Your task to perform on an android device: install app "Microsoft Excel" Image 0: 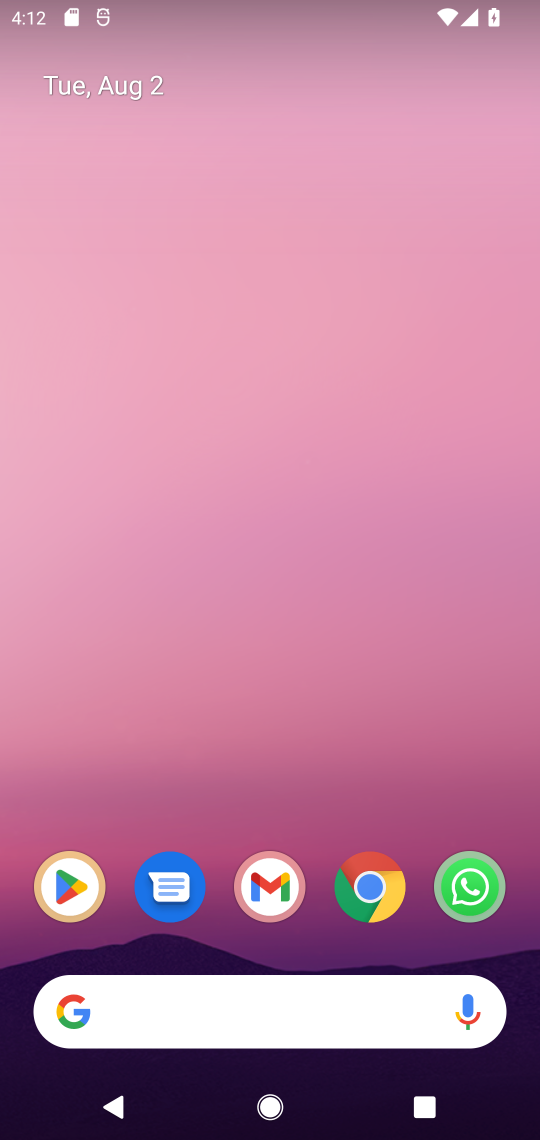
Step 0: click (46, 895)
Your task to perform on an android device: install app "Microsoft Excel" Image 1: 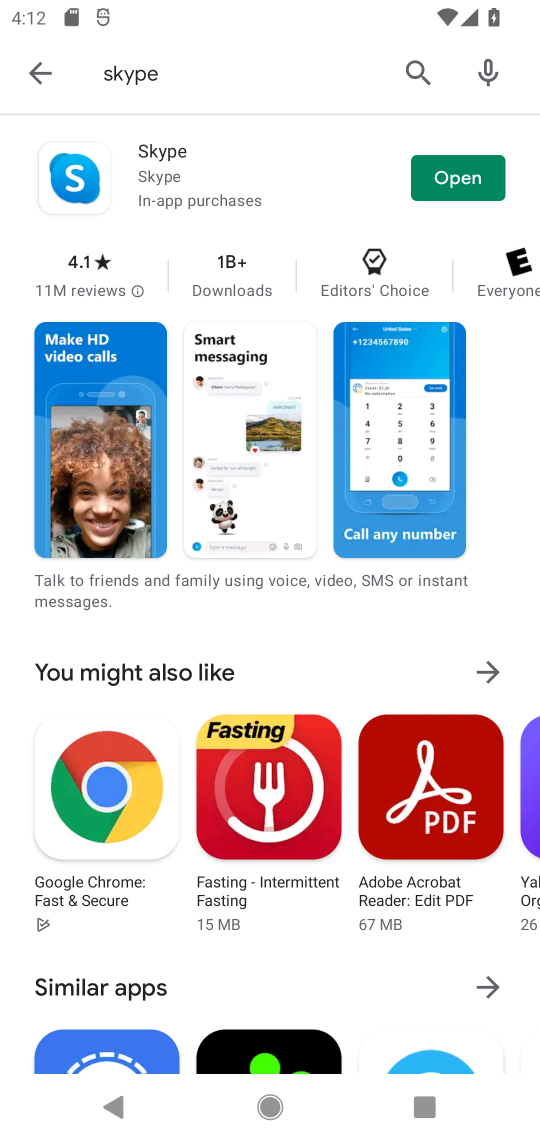
Step 1: click (25, 71)
Your task to perform on an android device: install app "Microsoft Excel" Image 2: 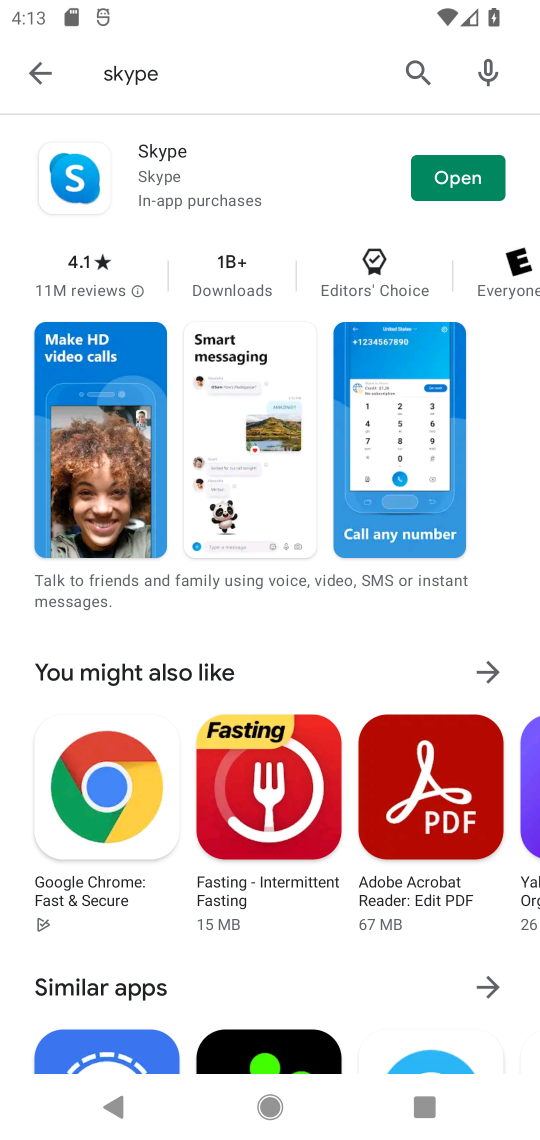
Step 2: click (22, 79)
Your task to perform on an android device: install app "Microsoft Excel" Image 3: 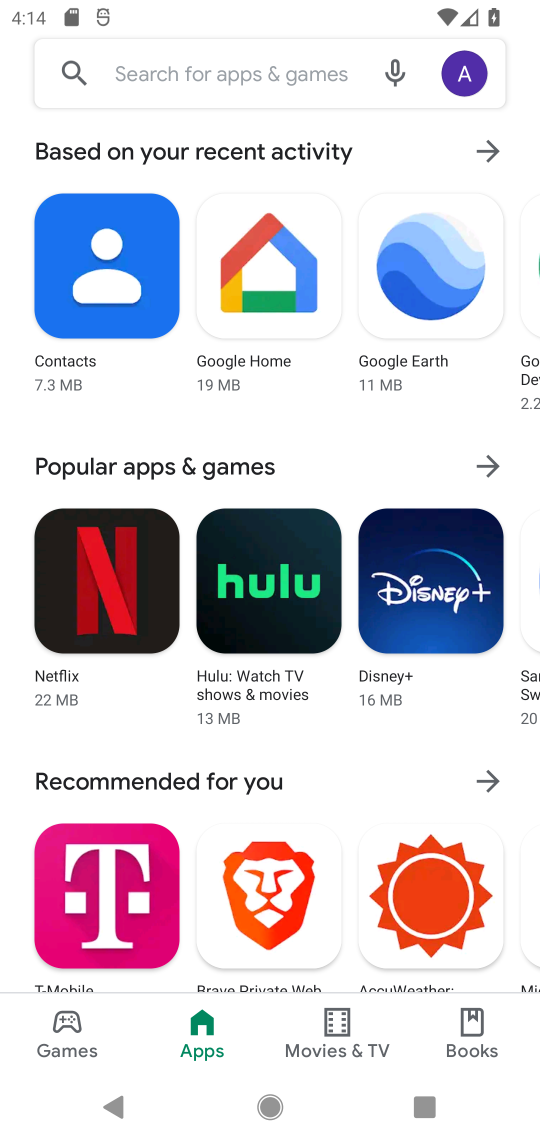
Step 3: click (186, 75)
Your task to perform on an android device: install app "Microsoft Excel" Image 4: 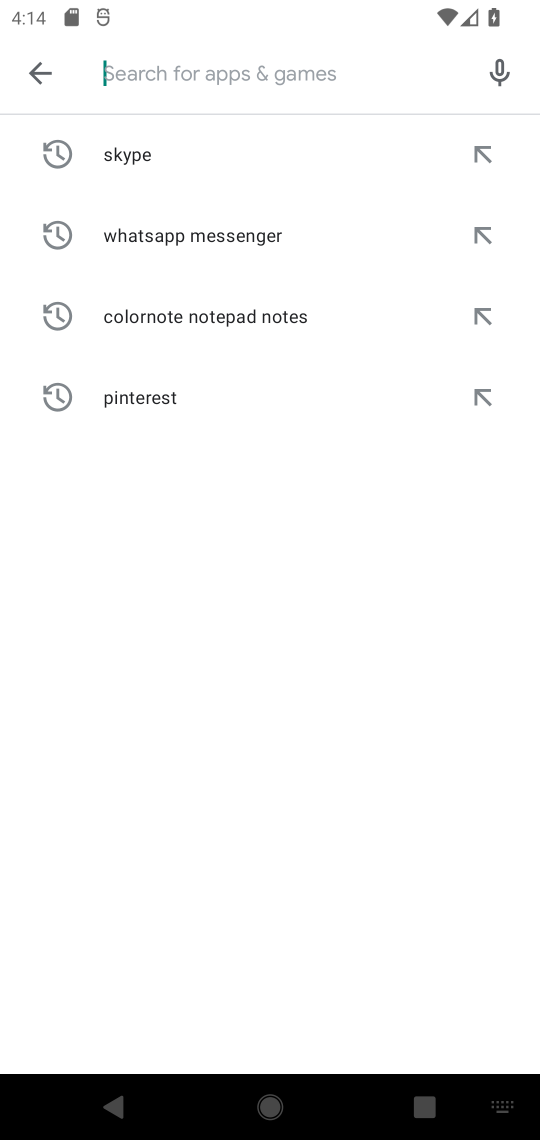
Step 4: type "Microsoft Excel"
Your task to perform on an android device: install app "Microsoft Excel" Image 5: 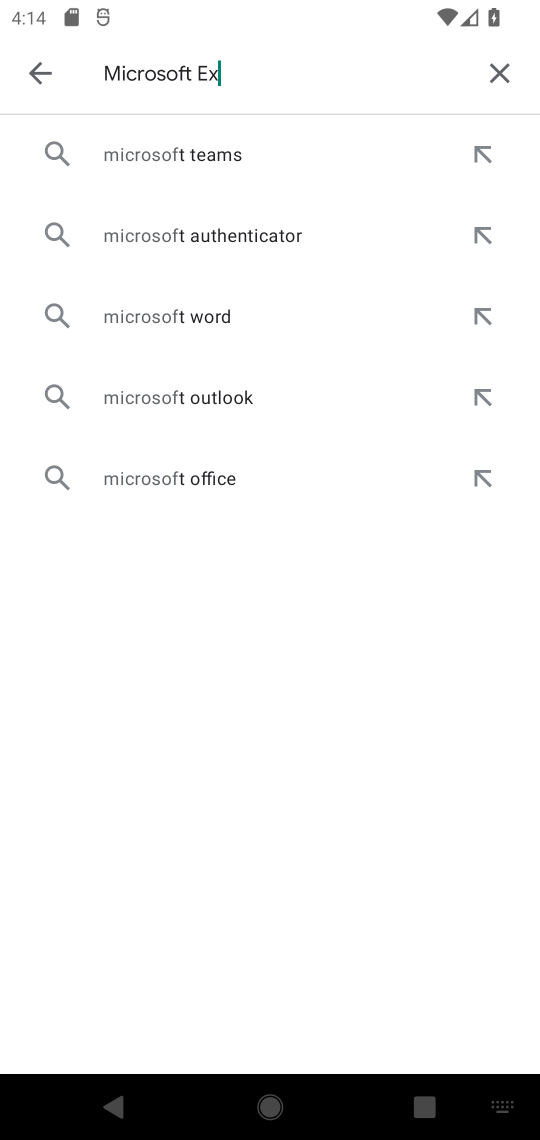
Step 5: type ""
Your task to perform on an android device: install app "Microsoft Excel" Image 6: 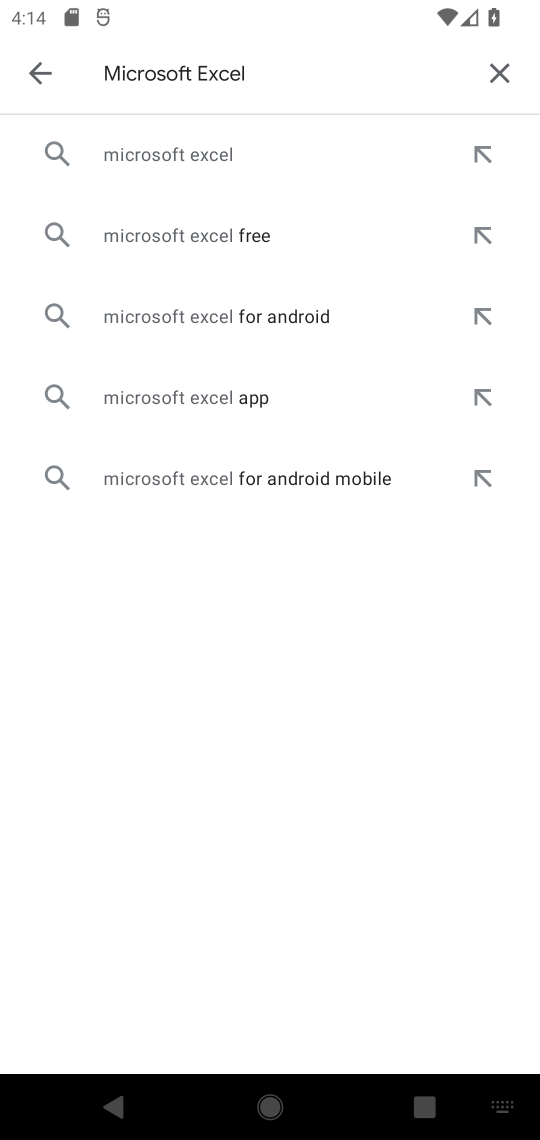
Step 6: click (125, 155)
Your task to perform on an android device: install app "Microsoft Excel" Image 7: 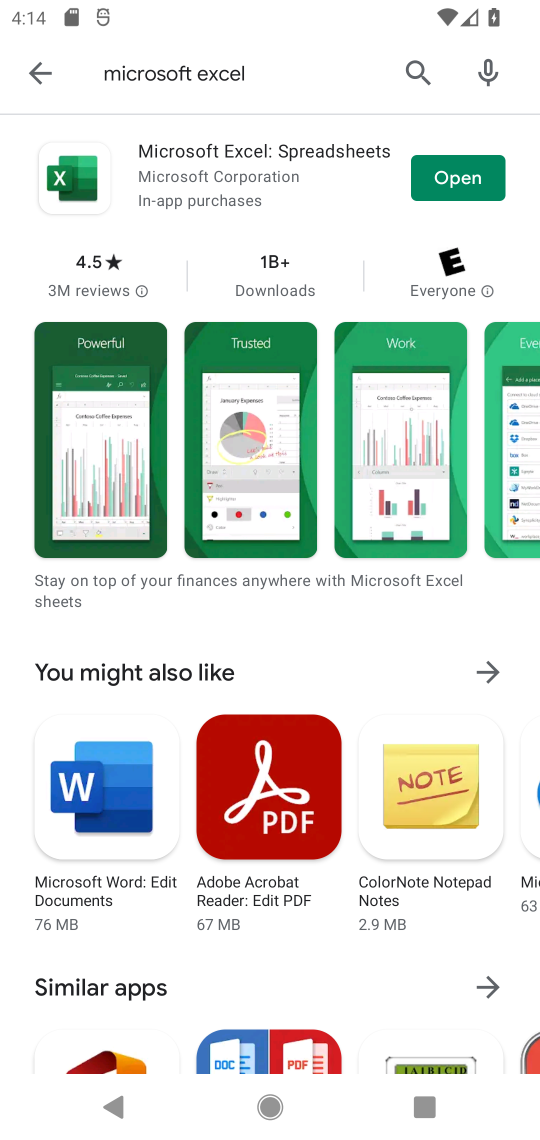
Step 7: click (467, 174)
Your task to perform on an android device: install app "Microsoft Excel" Image 8: 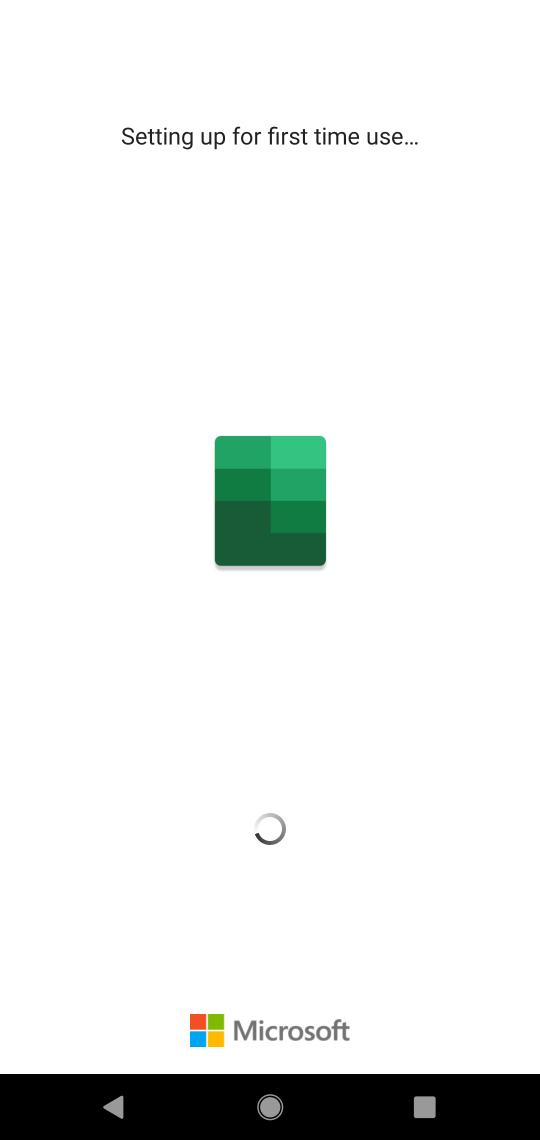
Step 8: task complete